Your task to perform on an android device: Open calendar and show me the second week of next month Image 0: 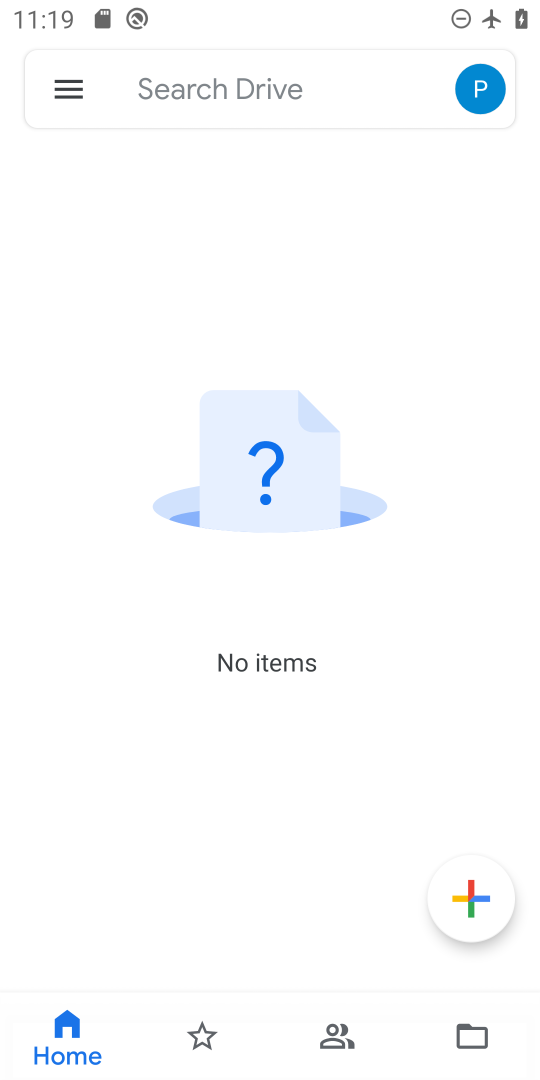
Step 0: press home button
Your task to perform on an android device: Open calendar and show me the second week of next month Image 1: 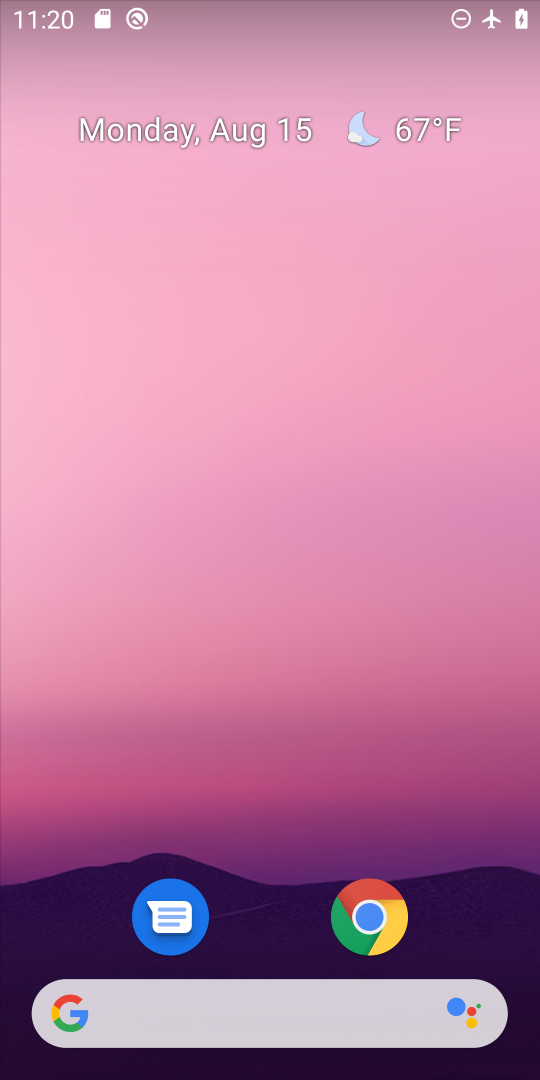
Step 1: drag from (292, 832) to (332, 0)
Your task to perform on an android device: Open calendar and show me the second week of next month Image 2: 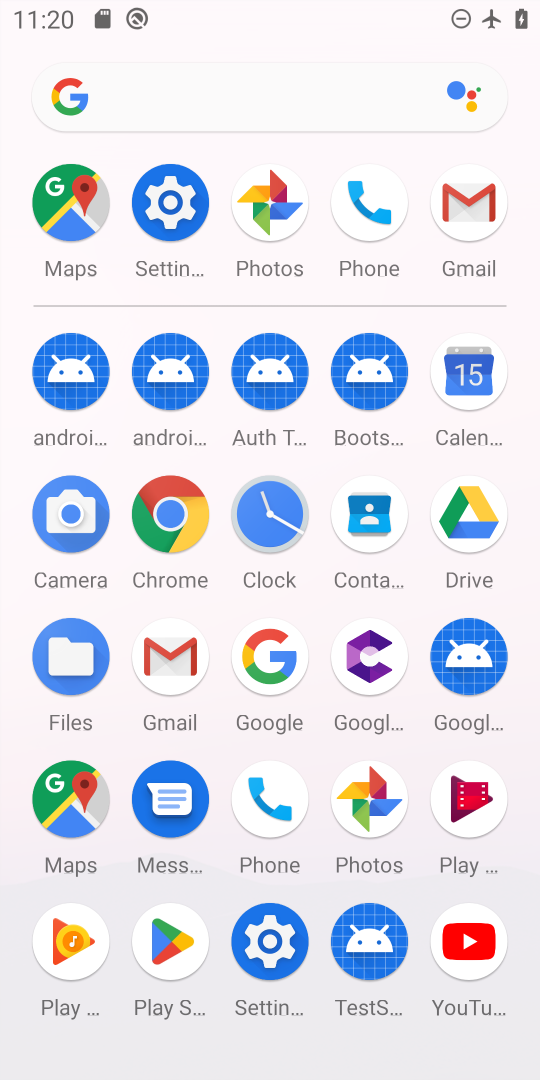
Step 2: click (472, 367)
Your task to perform on an android device: Open calendar and show me the second week of next month Image 3: 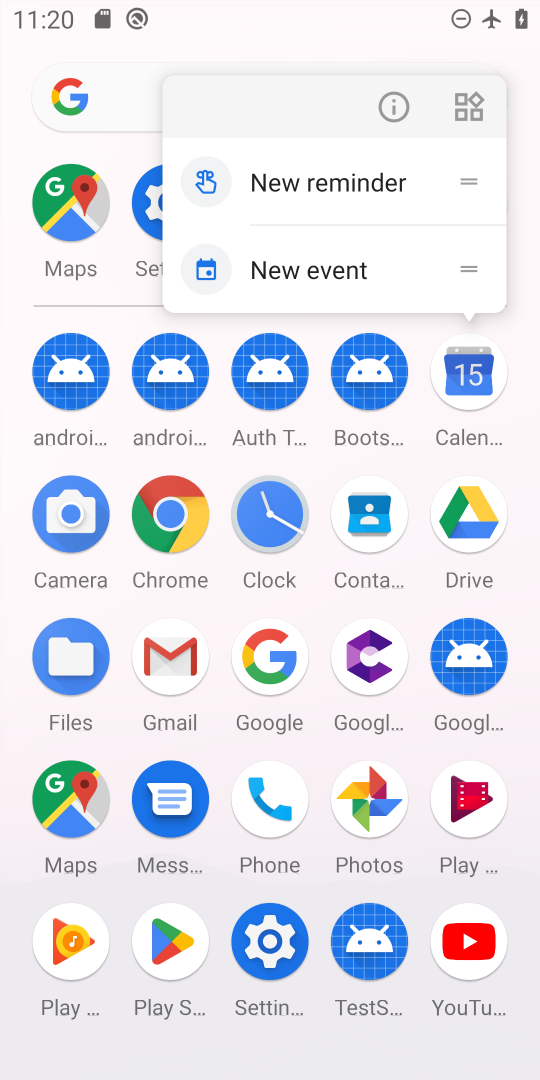
Step 3: click (472, 365)
Your task to perform on an android device: Open calendar and show me the second week of next month Image 4: 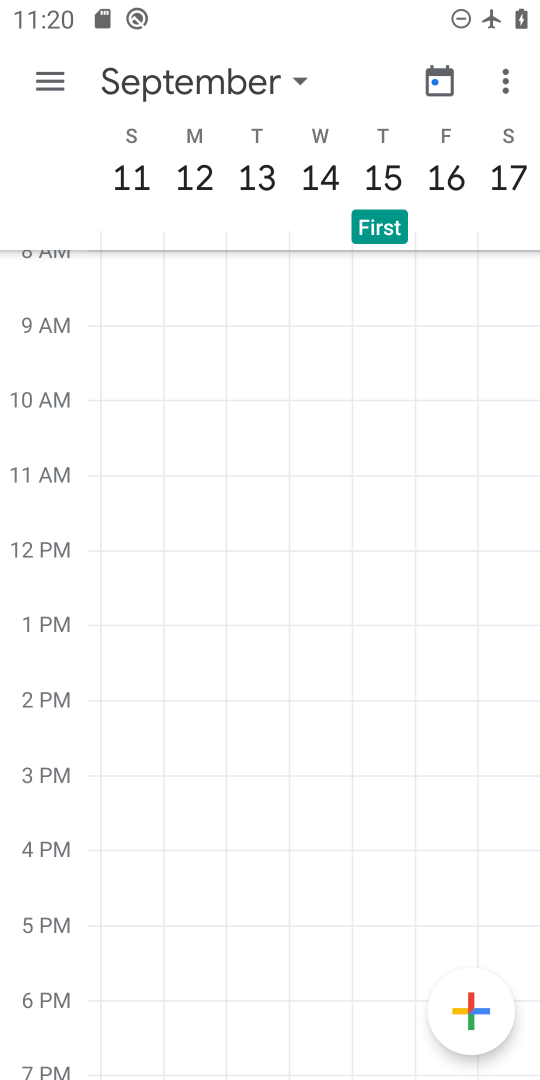
Step 4: task complete